Your task to perform on an android device: Show the shopping cart on newegg.com. Image 0: 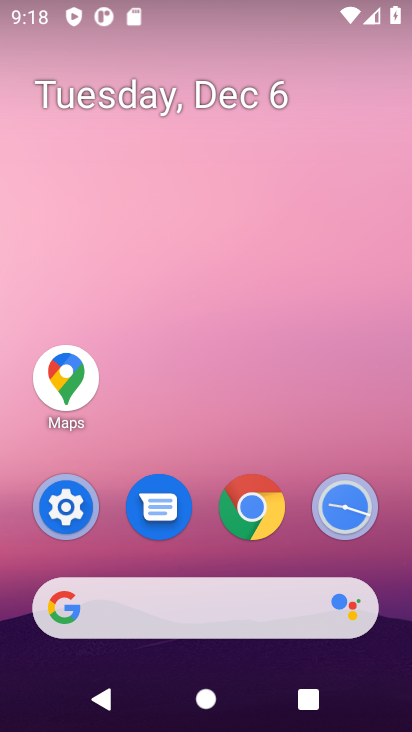
Step 0: click (128, 610)
Your task to perform on an android device: Show the shopping cart on newegg.com. Image 1: 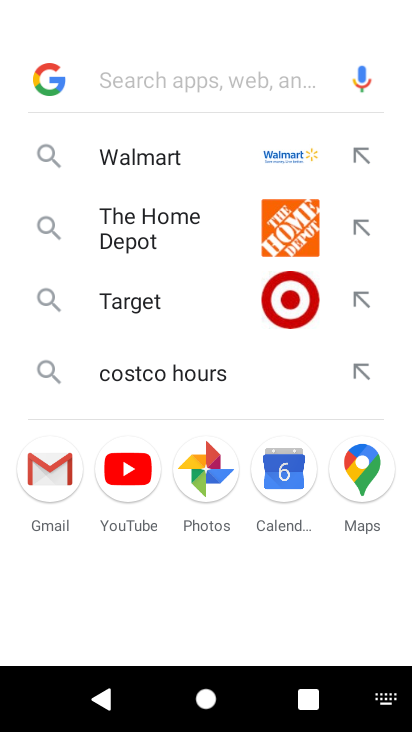
Step 1: type "newegg.com"
Your task to perform on an android device: Show the shopping cart on newegg.com. Image 2: 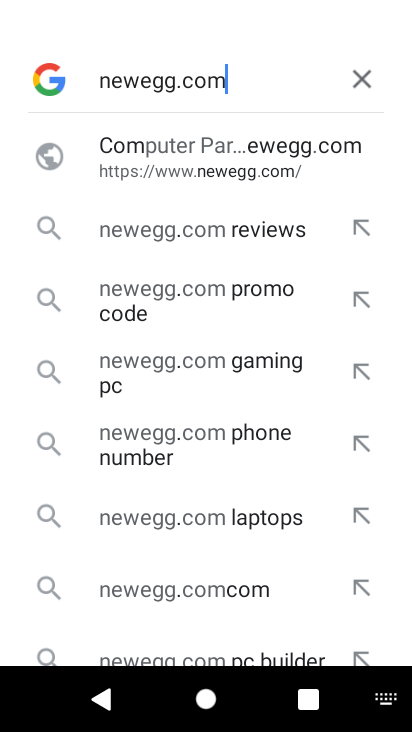
Step 2: press enter
Your task to perform on an android device: Show the shopping cart on newegg.com. Image 3: 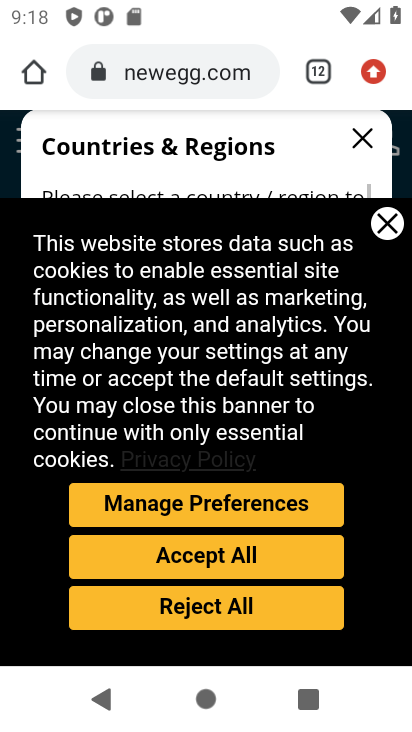
Step 3: click (389, 226)
Your task to perform on an android device: Show the shopping cart on newegg.com. Image 4: 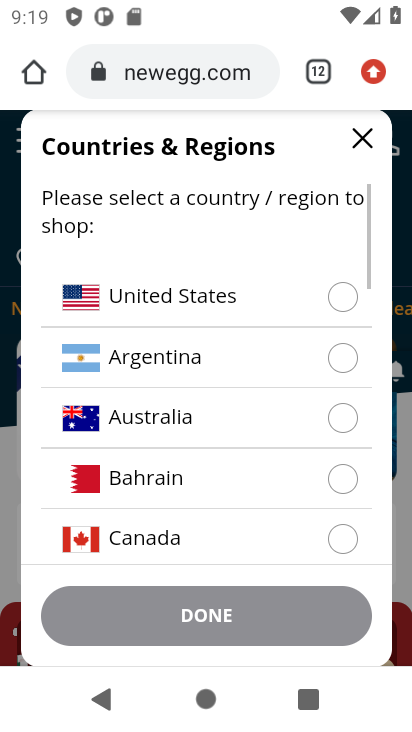
Step 4: click (360, 134)
Your task to perform on an android device: Show the shopping cart on newegg.com. Image 5: 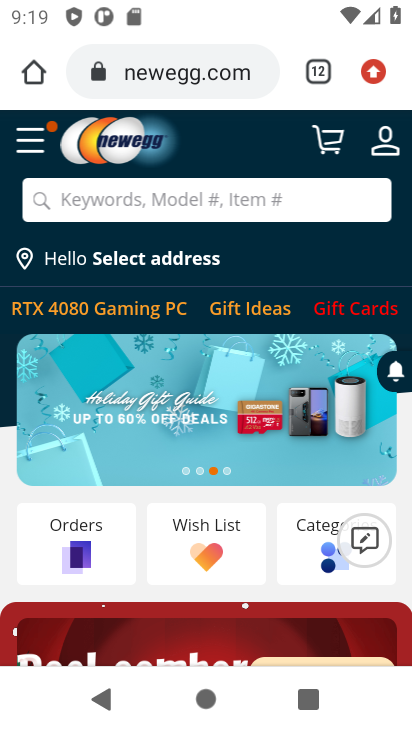
Step 5: click (325, 140)
Your task to perform on an android device: Show the shopping cart on newegg.com. Image 6: 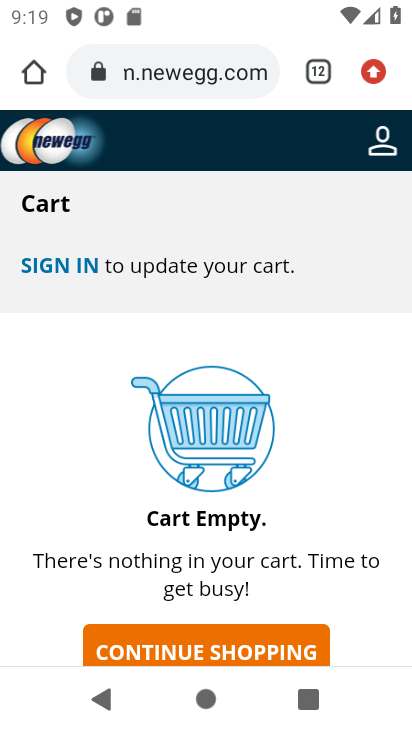
Step 6: task complete